Your task to perform on an android device: turn off translation in the chrome app Image 0: 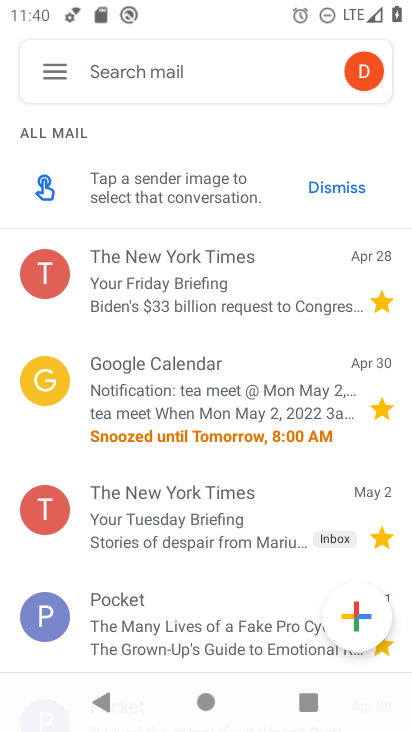
Step 0: press home button
Your task to perform on an android device: turn off translation in the chrome app Image 1: 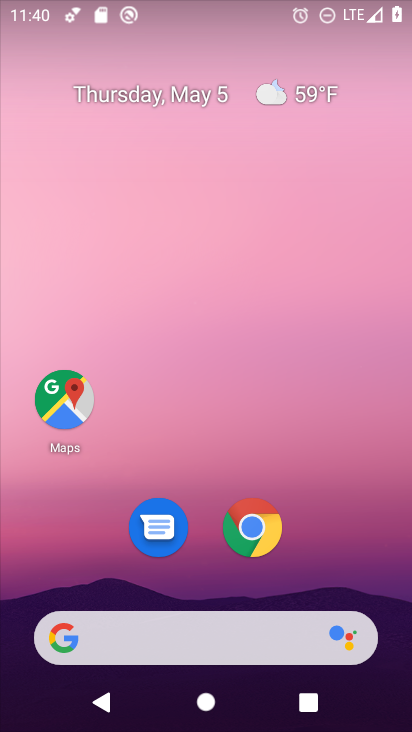
Step 1: click (260, 538)
Your task to perform on an android device: turn off translation in the chrome app Image 2: 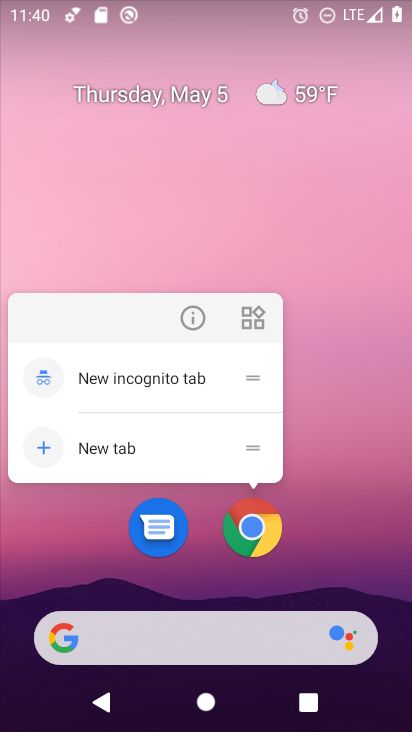
Step 2: click (339, 520)
Your task to perform on an android device: turn off translation in the chrome app Image 3: 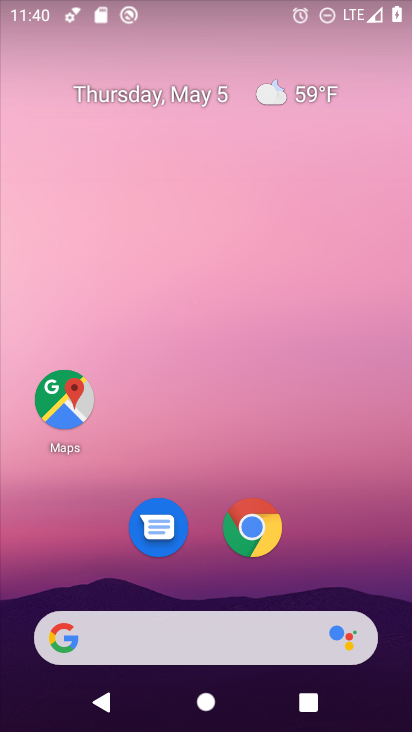
Step 3: click (246, 538)
Your task to perform on an android device: turn off translation in the chrome app Image 4: 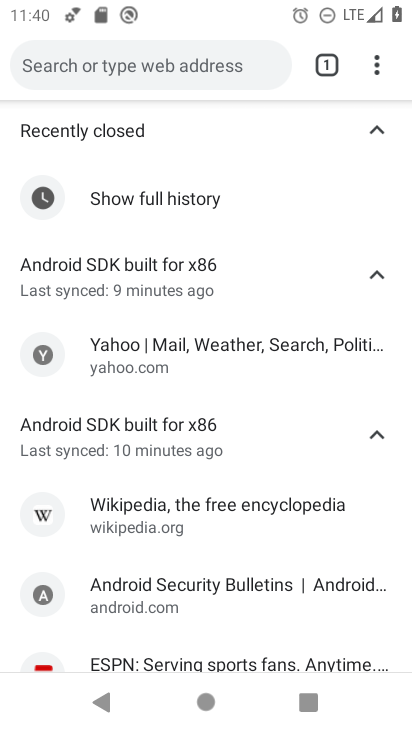
Step 4: drag from (371, 58) to (182, 574)
Your task to perform on an android device: turn off translation in the chrome app Image 5: 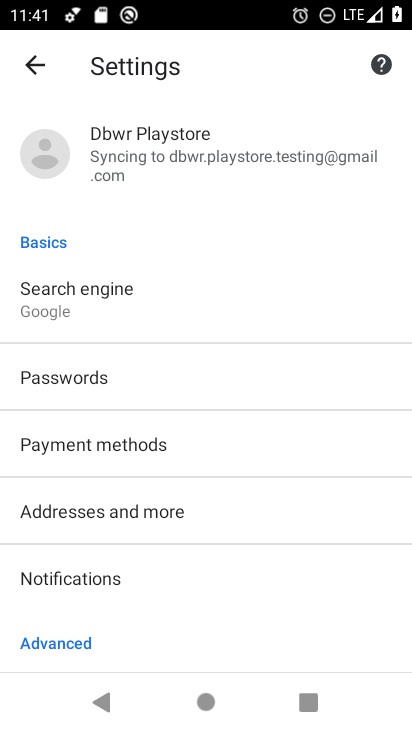
Step 5: drag from (273, 570) to (326, 76)
Your task to perform on an android device: turn off translation in the chrome app Image 6: 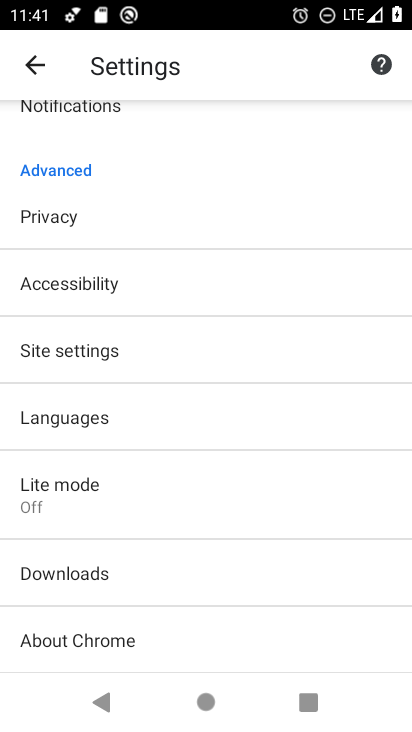
Step 6: click (103, 426)
Your task to perform on an android device: turn off translation in the chrome app Image 7: 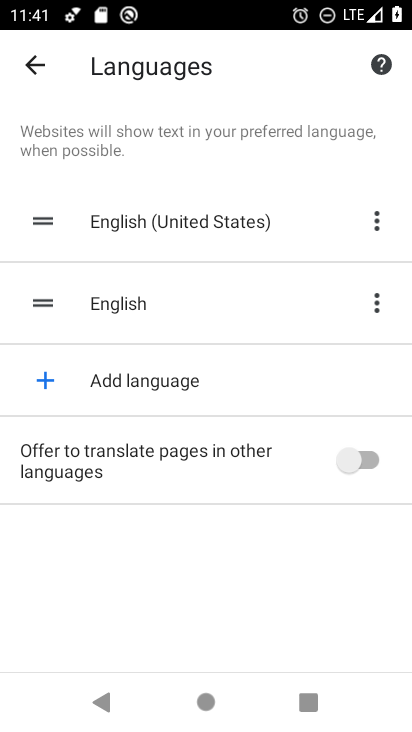
Step 7: task complete